Your task to perform on an android device: turn off notifications in google photos Image 0: 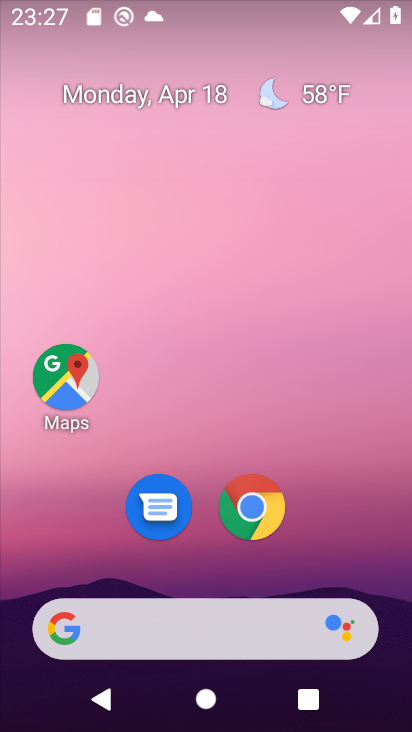
Step 0: drag from (214, 576) to (281, 48)
Your task to perform on an android device: turn off notifications in google photos Image 1: 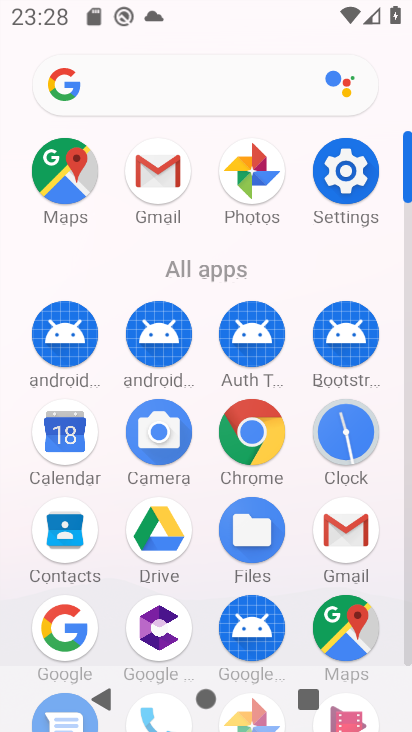
Step 1: drag from (203, 546) to (244, 294)
Your task to perform on an android device: turn off notifications in google photos Image 2: 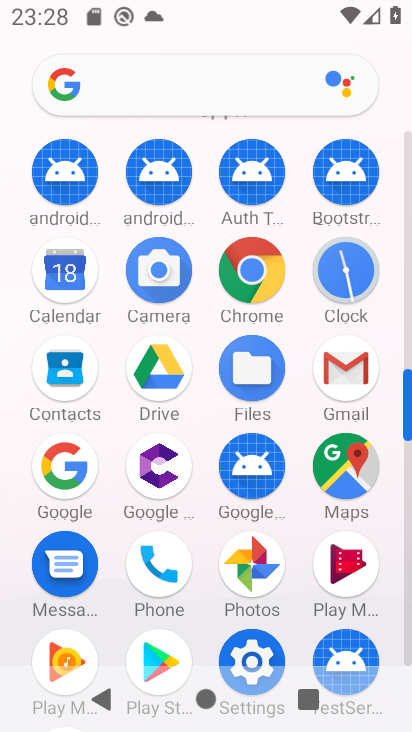
Step 2: click (257, 554)
Your task to perform on an android device: turn off notifications in google photos Image 3: 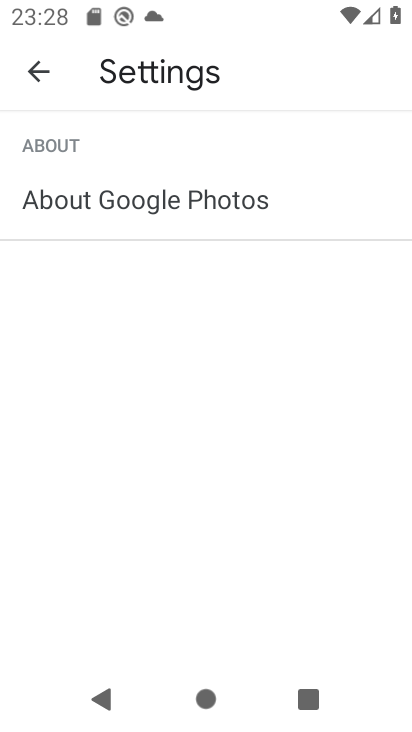
Step 3: click (35, 76)
Your task to perform on an android device: turn off notifications in google photos Image 4: 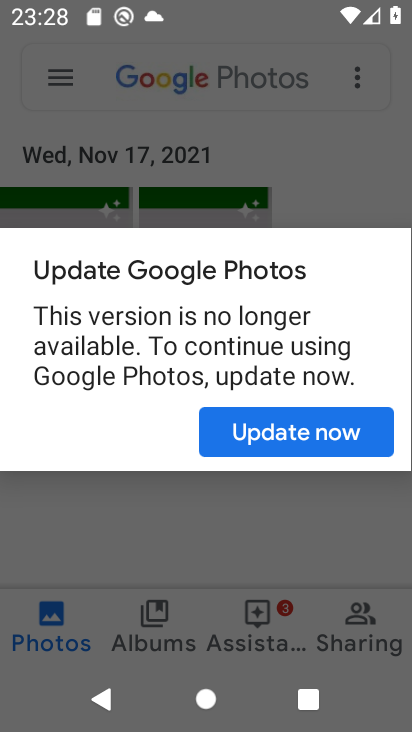
Step 4: click (302, 436)
Your task to perform on an android device: turn off notifications in google photos Image 5: 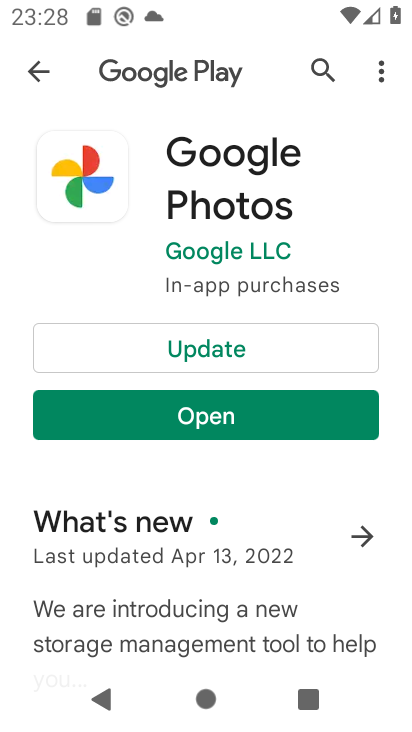
Step 5: click (252, 408)
Your task to perform on an android device: turn off notifications in google photos Image 6: 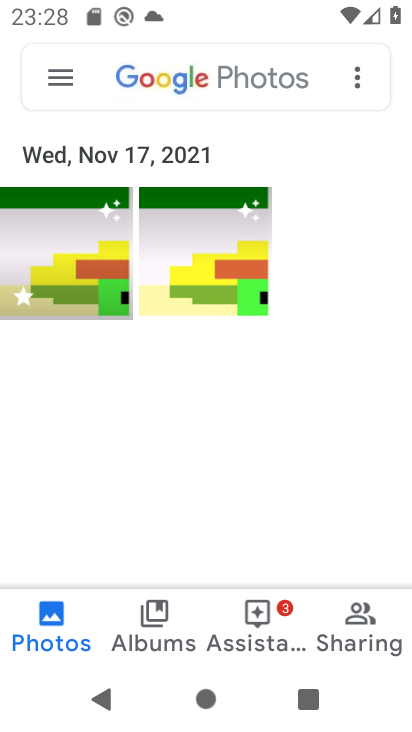
Step 6: click (58, 85)
Your task to perform on an android device: turn off notifications in google photos Image 7: 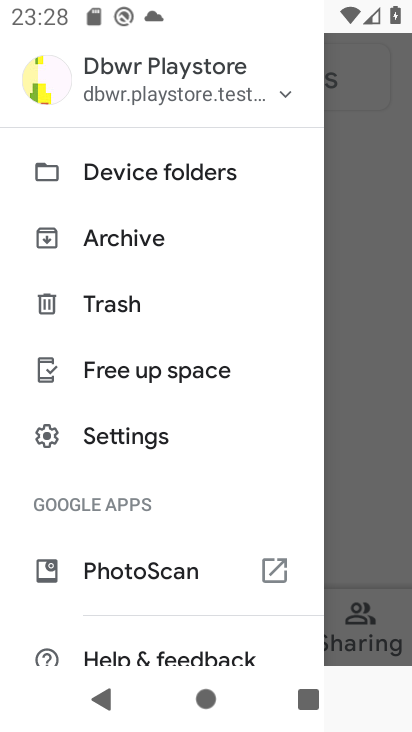
Step 7: click (123, 437)
Your task to perform on an android device: turn off notifications in google photos Image 8: 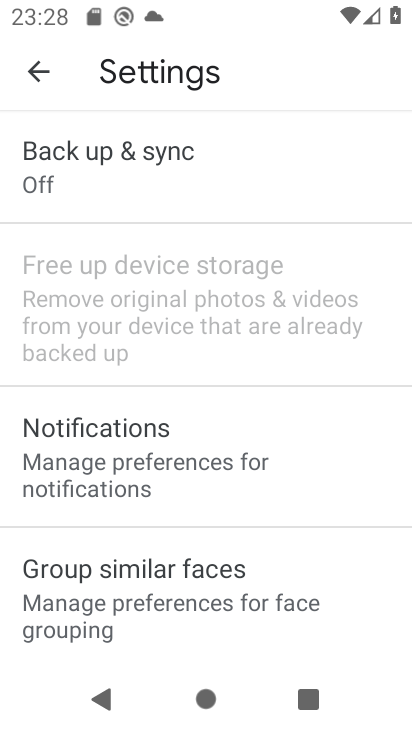
Step 8: click (169, 457)
Your task to perform on an android device: turn off notifications in google photos Image 9: 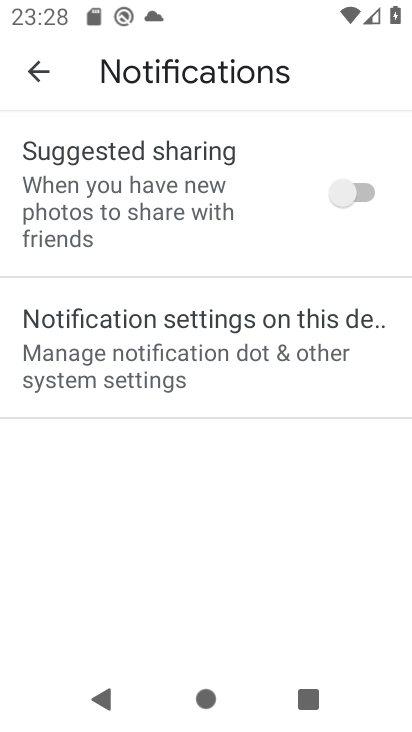
Step 9: click (260, 344)
Your task to perform on an android device: turn off notifications in google photos Image 10: 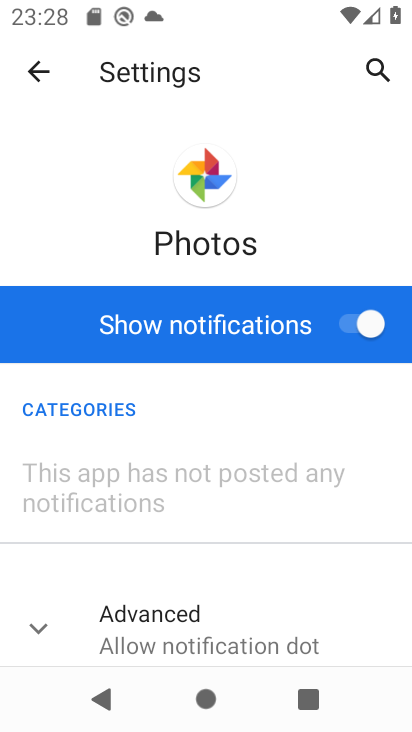
Step 10: click (342, 326)
Your task to perform on an android device: turn off notifications in google photos Image 11: 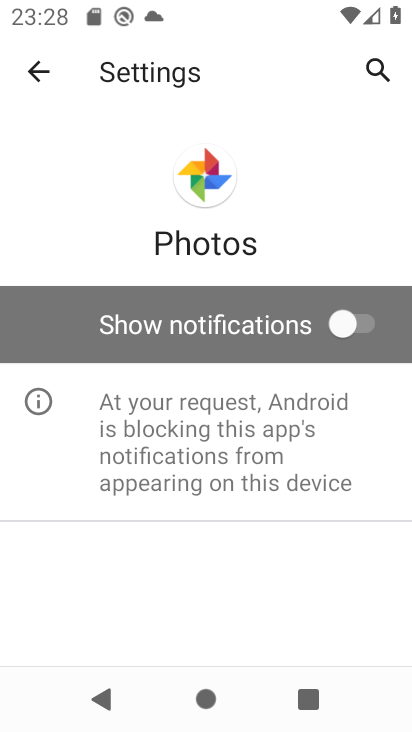
Step 11: task complete